Your task to perform on an android device: clear history in the chrome app Image 0: 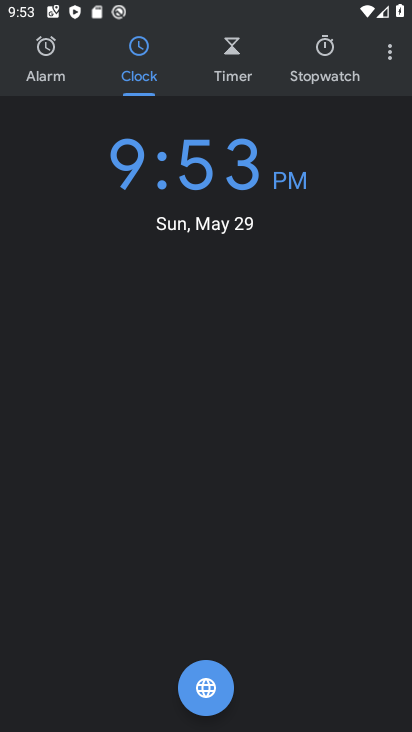
Step 0: press home button
Your task to perform on an android device: clear history in the chrome app Image 1: 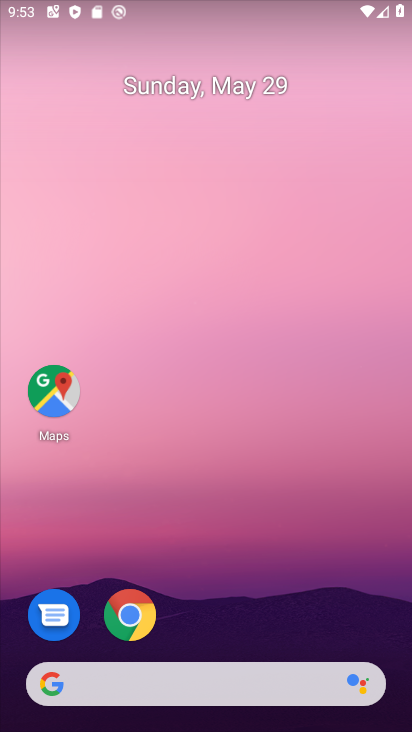
Step 1: click (118, 613)
Your task to perform on an android device: clear history in the chrome app Image 2: 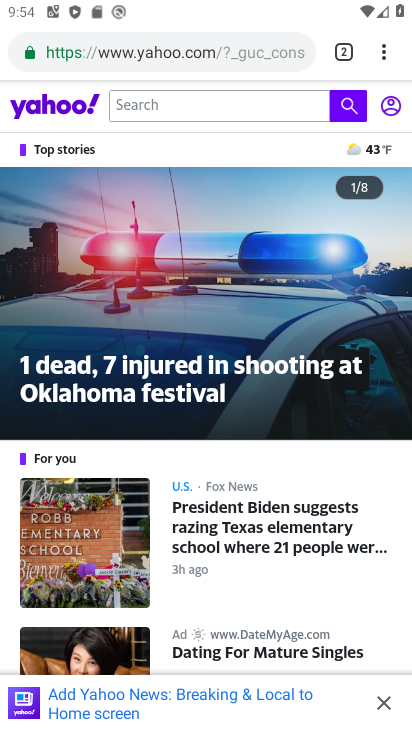
Step 2: click (381, 53)
Your task to perform on an android device: clear history in the chrome app Image 3: 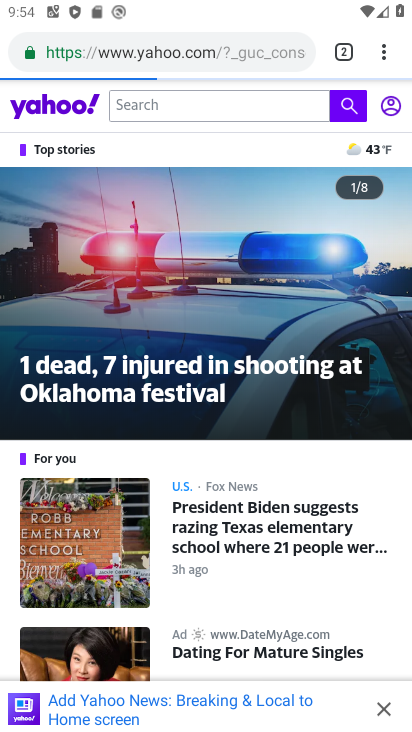
Step 3: drag from (381, 53) to (187, 301)
Your task to perform on an android device: clear history in the chrome app Image 4: 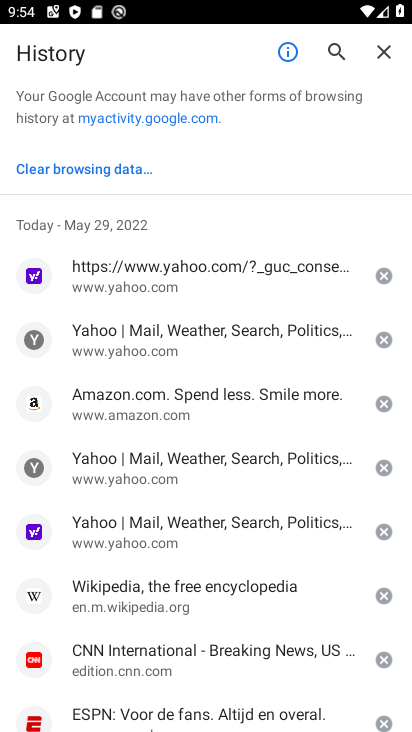
Step 4: click (90, 172)
Your task to perform on an android device: clear history in the chrome app Image 5: 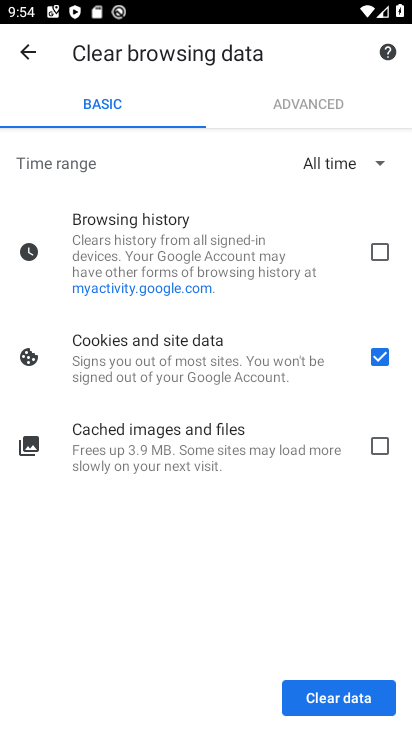
Step 5: click (345, 692)
Your task to perform on an android device: clear history in the chrome app Image 6: 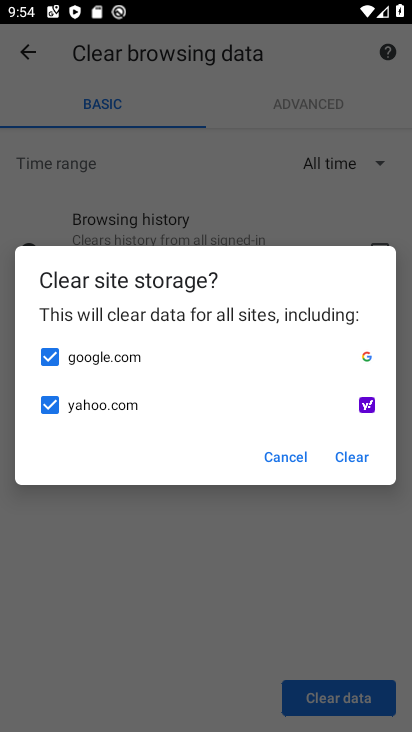
Step 6: click (268, 465)
Your task to perform on an android device: clear history in the chrome app Image 7: 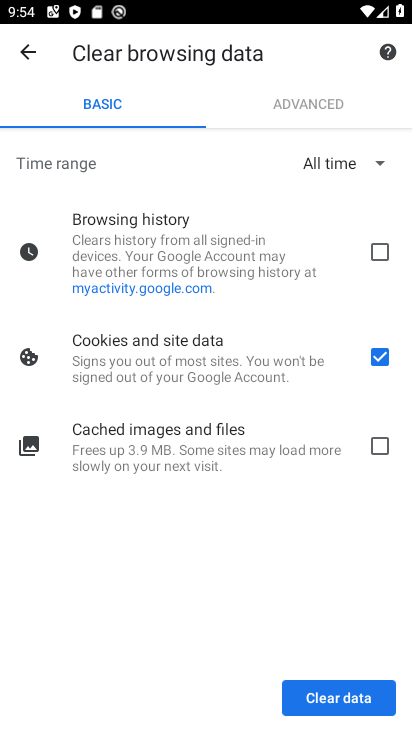
Step 7: click (364, 247)
Your task to perform on an android device: clear history in the chrome app Image 8: 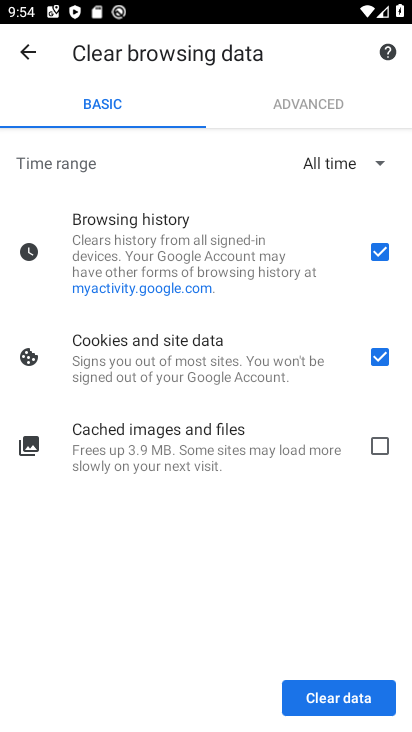
Step 8: click (376, 669)
Your task to perform on an android device: clear history in the chrome app Image 9: 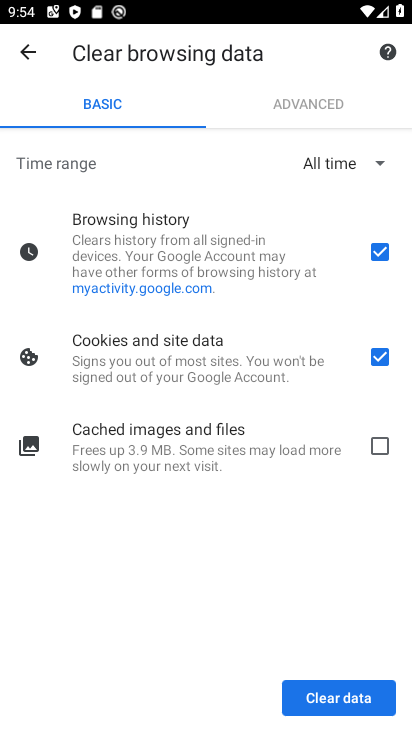
Step 9: click (361, 692)
Your task to perform on an android device: clear history in the chrome app Image 10: 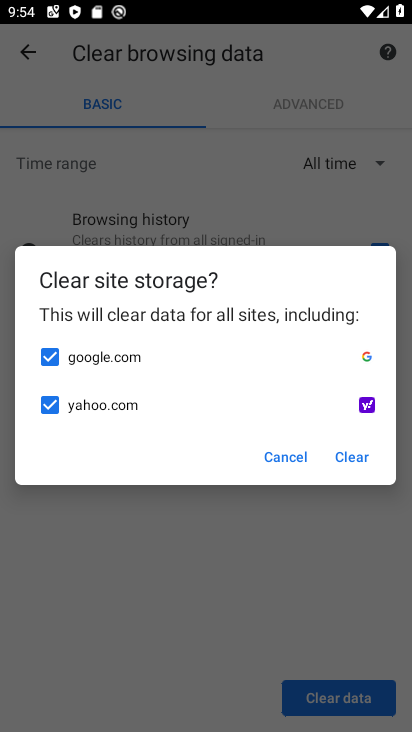
Step 10: click (342, 457)
Your task to perform on an android device: clear history in the chrome app Image 11: 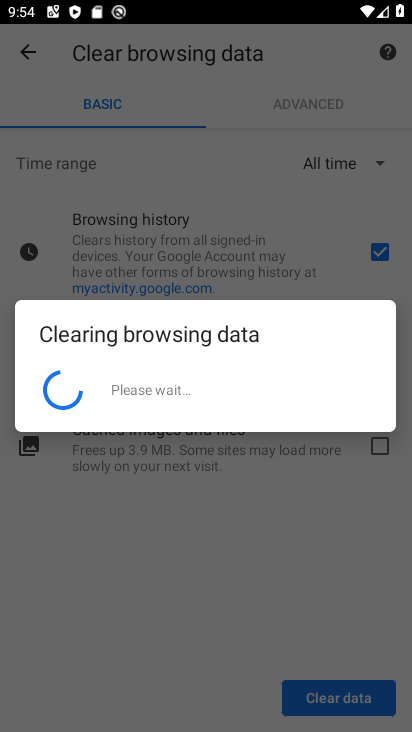
Step 11: task complete